Your task to perform on an android device: Open Wikipedia Image 0: 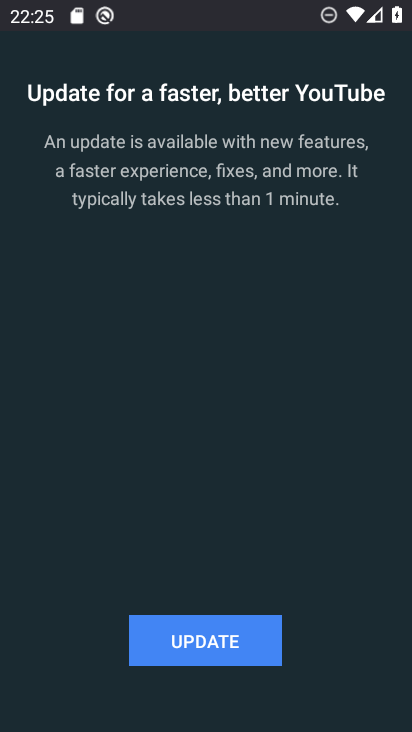
Step 0: press home button
Your task to perform on an android device: Open Wikipedia Image 1: 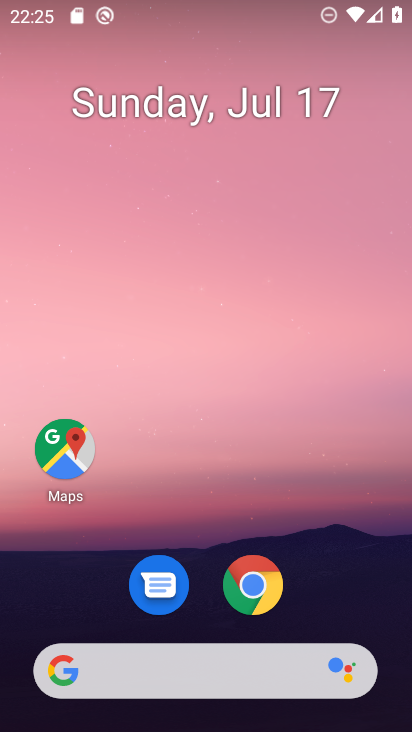
Step 1: click (244, 591)
Your task to perform on an android device: Open Wikipedia Image 2: 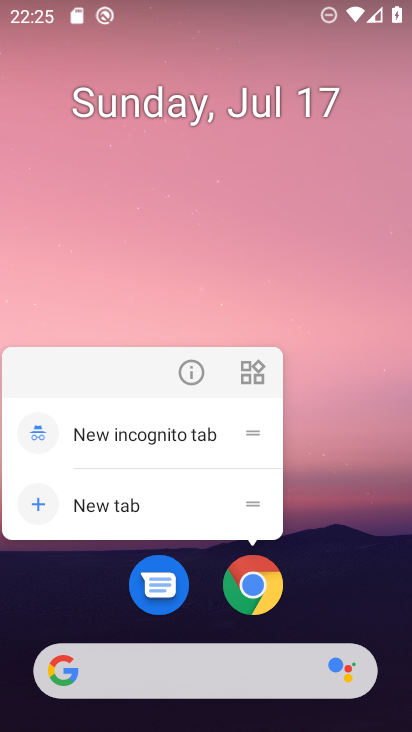
Step 2: click (250, 584)
Your task to perform on an android device: Open Wikipedia Image 3: 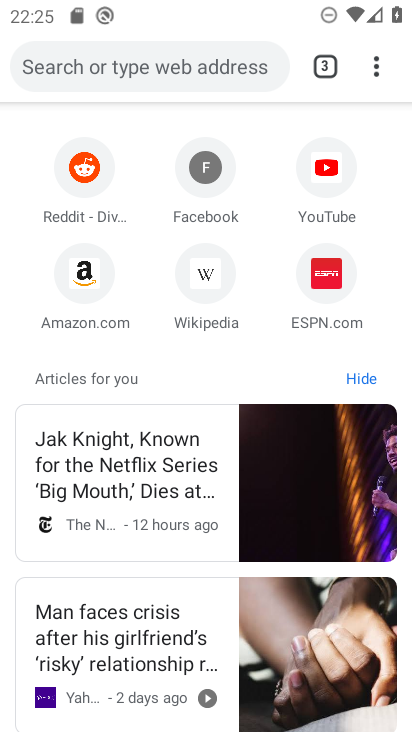
Step 3: click (203, 283)
Your task to perform on an android device: Open Wikipedia Image 4: 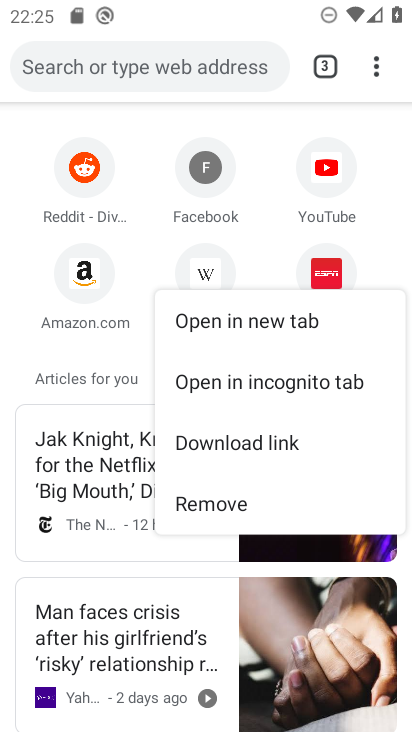
Step 4: click (195, 269)
Your task to perform on an android device: Open Wikipedia Image 5: 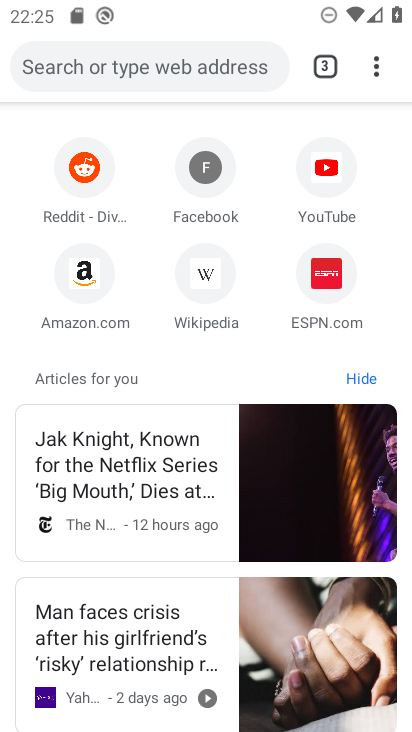
Step 5: click (208, 278)
Your task to perform on an android device: Open Wikipedia Image 6: 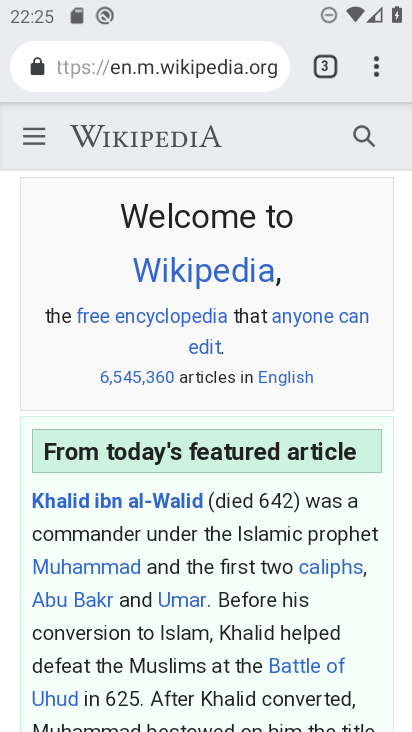
Step 6: task complete